Your task to perform on an android device: turn off location history Image 0: 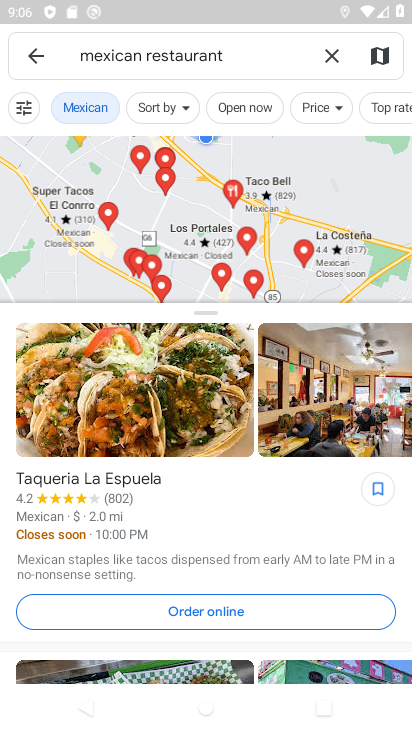
Step 0: press home button
Your task to perform on an android device: turn off location history Image 1: 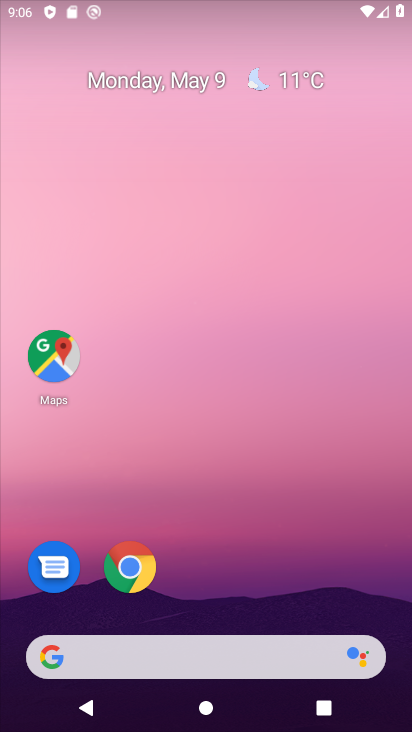
Step 1: drag from (177, 501) to (219, 15)
Your task to perform on an android device: turn off location history Image 2: 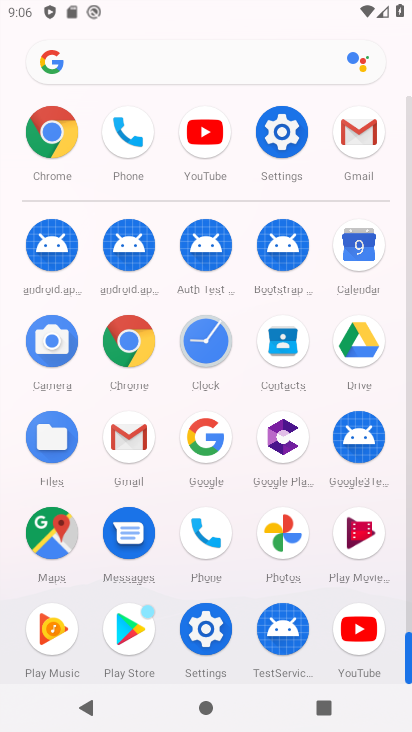
Step 2: click (282, 124)
Your task to perform on an android device: turn off location history Image 3: 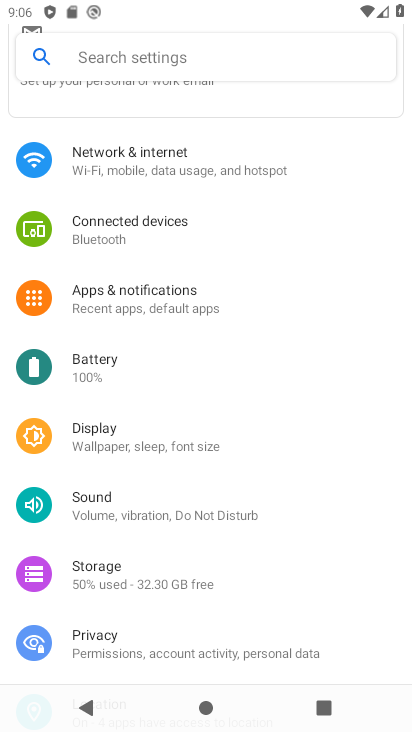
Step 3: drag from (228, 590) to (224, 262)
Your task to perform on an android device: turn off location history Image 4: 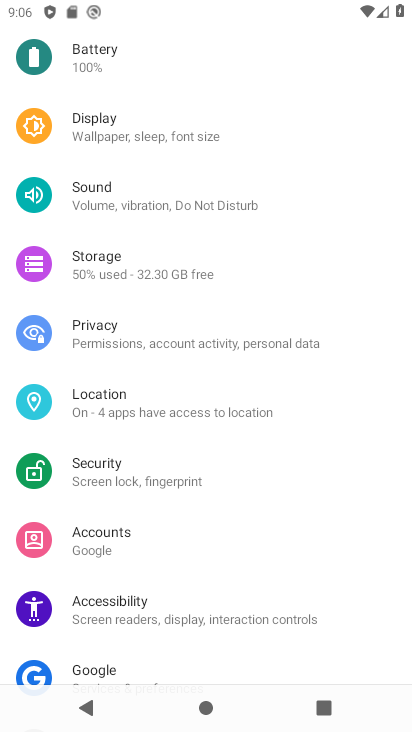
Step 4: click (201, 399)
Your task to perform on an android device: turn off location history Image 5: 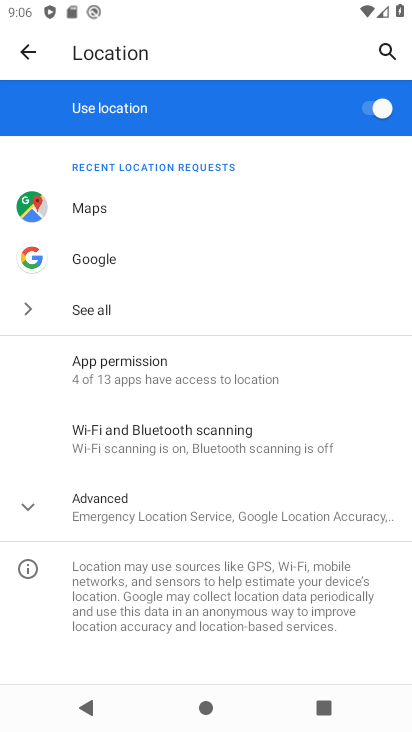
Step 5: click (22, 499)
Your task to perform on an android device: turn off location history Image 6: 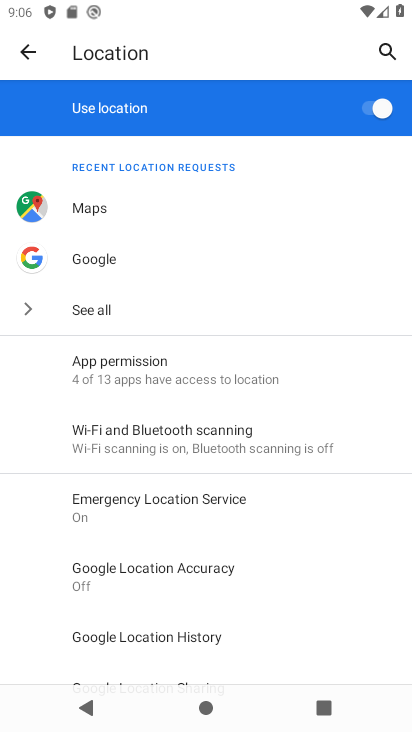
Step 6: drag from (278, 590) to (275, 417)
Your task to perform on an android device: turn off location history Image 7: 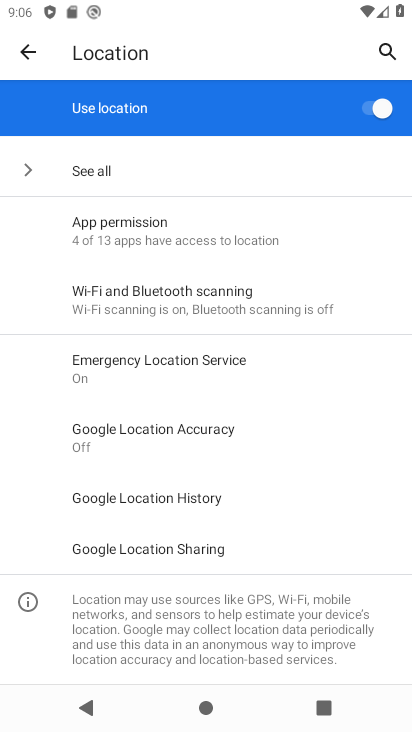
Step 7: click (202, 495)
Your task to perform on an android device: turn off location history Image 8: 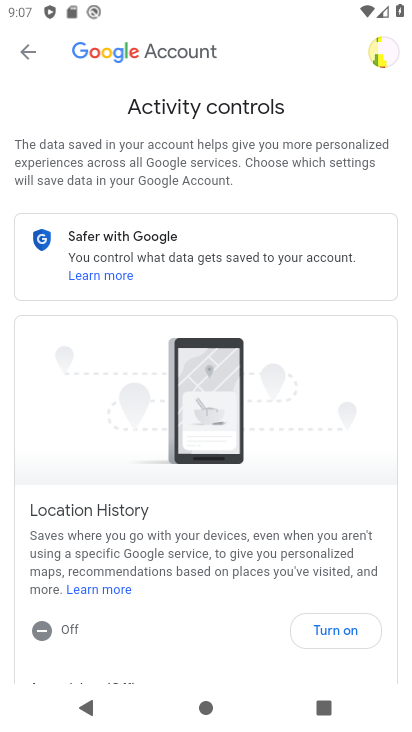
Step 8: task complete